Your task to perform on an android device: Open calendar and show me the first week of next month Image 0: 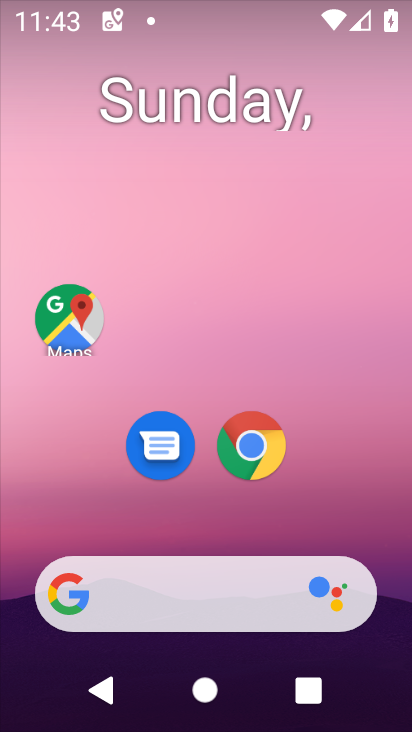
Step 0: click (199, 109)
Your task to perform on an android device: Open calendar and show me the first week of next month Image 1: 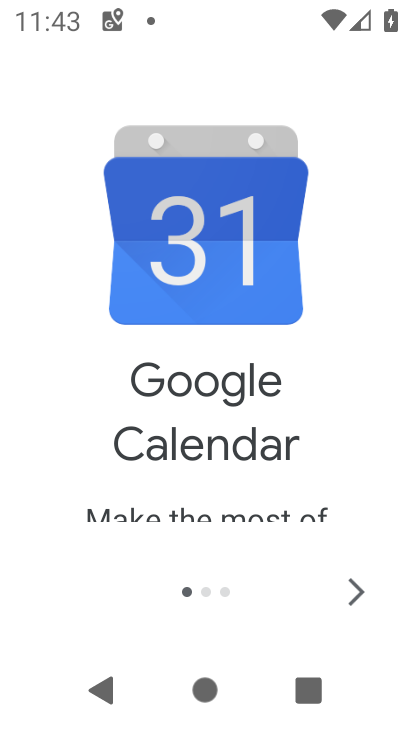
Step 1: click (352, 593)
Your task to perform on an android device: Open calendar and show me the first week of next month Image 2: 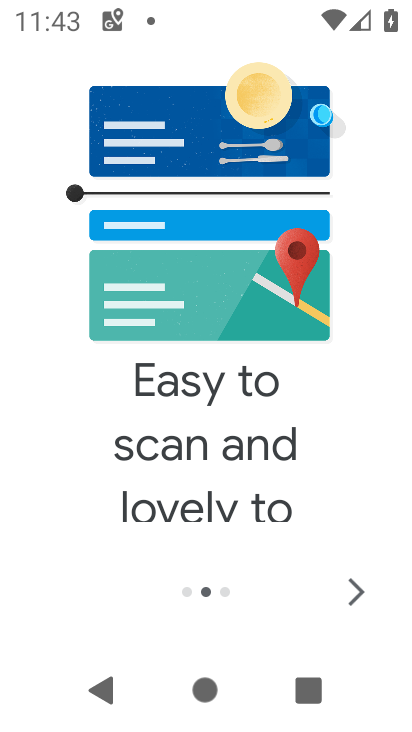
Step 2: click (352, 592)
Your task to perform on an android device: Open calendar and show me the first week of next month Image 3: 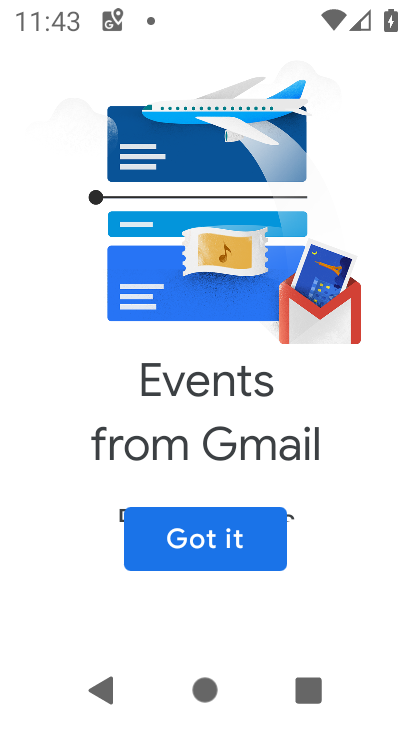
Step 3: click (227, 546)
Your task to perform on an android device: Open calendar and show me the first week of next month Image 4: 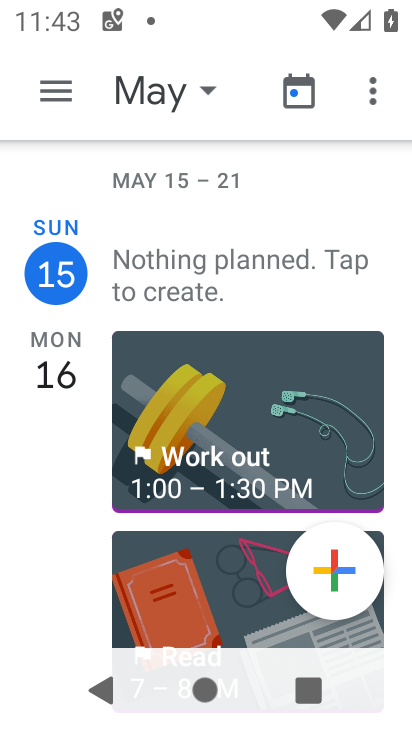
Step 4: click (58, 85)
Your task to perform on an android device: Open calendar and show me the first week of next month Image 5: 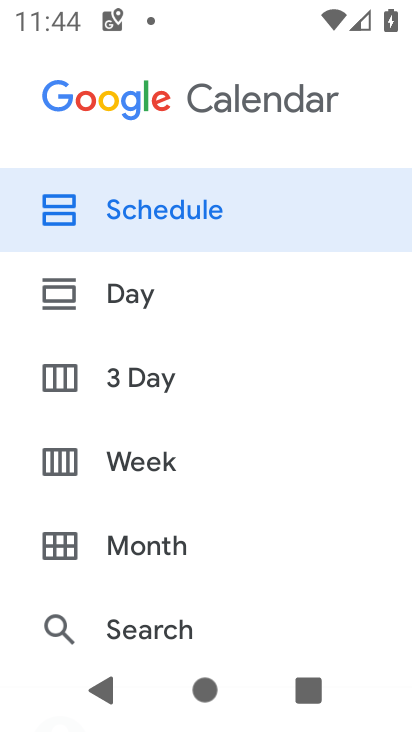
Step 5: click (174, 469)
Your task to perform on an android device: Open calendar and show me the first week of next month Image 6: 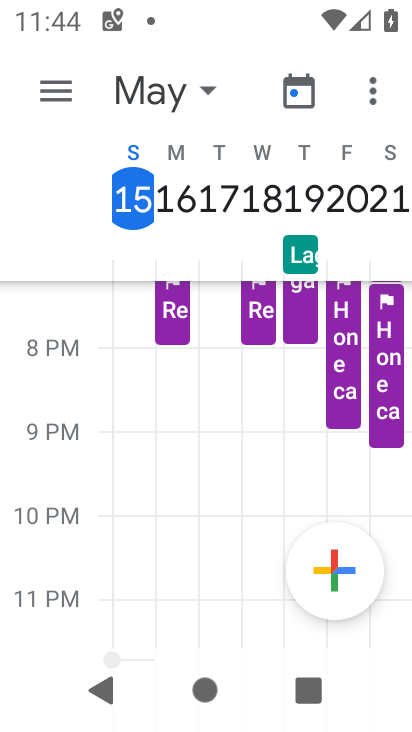
Step 6: click (180, 88)
Your task to perform on an android device: Open calendar and show me the first week of next month Image 7: 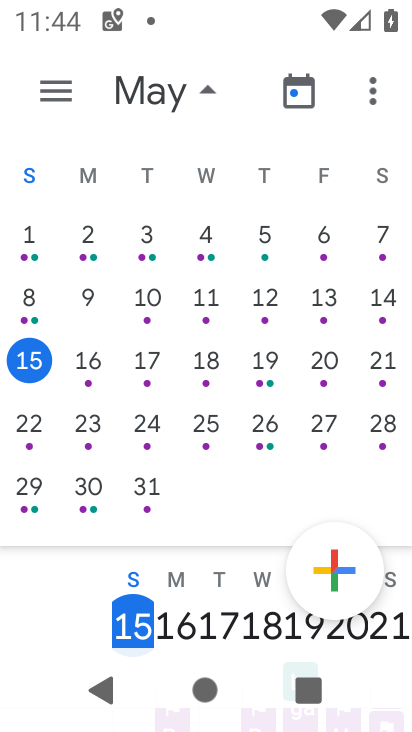
Step 7: drag from (322, 346) to (7, 307)
Your task to perform on an android device: Open calendar and show me the first week of next month Image 8: 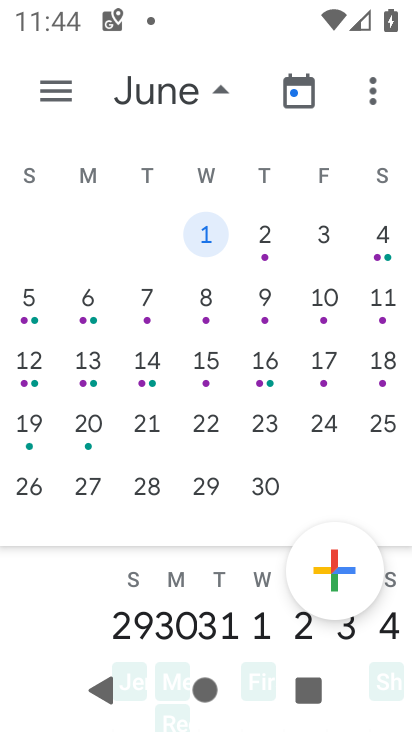
Step 8: click (206, 232)
Your task to perform on an android device: Open calendar and show me the first week of next month Image 9: 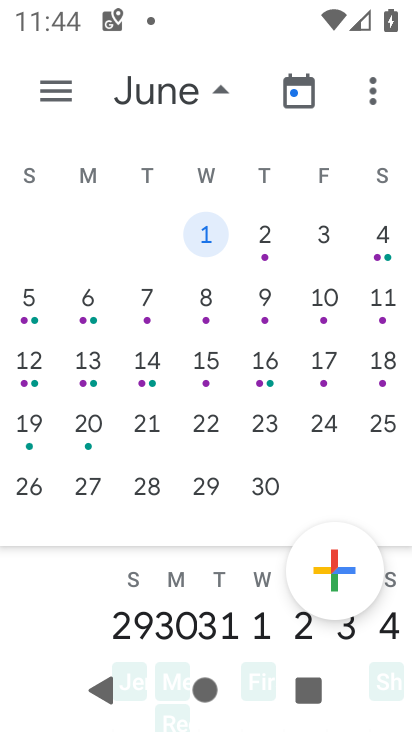
Step 9: task complete